Your task to perform on an android device: find photos in the google photos app Image 0: 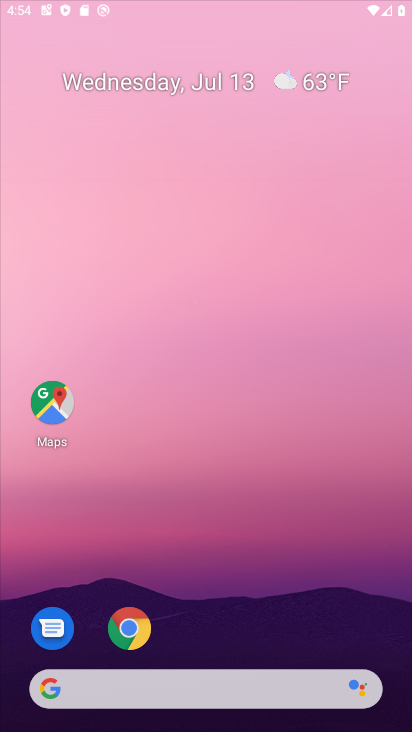
Step 0: press home button
Your task to perform on an android device: find photos in the google photos app Image 1: 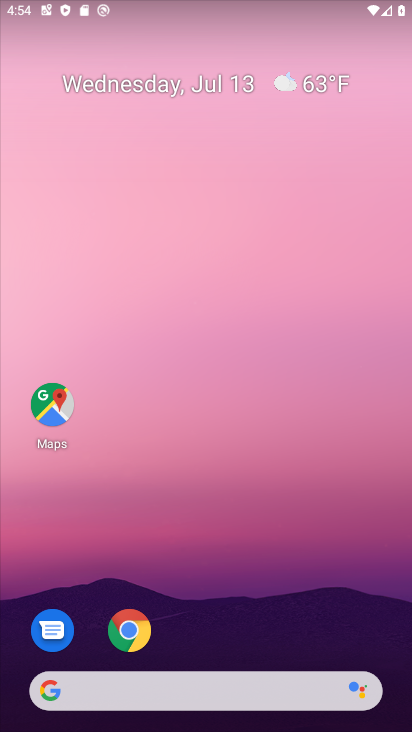
Step 1: drag from (239, 640) to (334, 128)
Your task to perform on an android device: find photos in the google photos app Image 2: 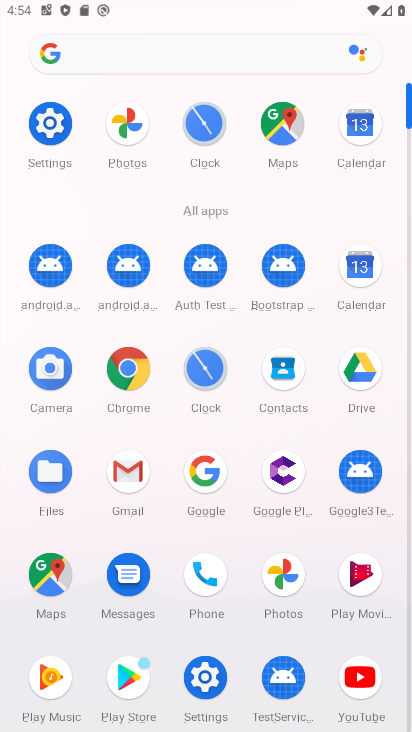
Step 2: click (292, 583)
Your task to perform on an android device: find photos in the google photos app Image 3: 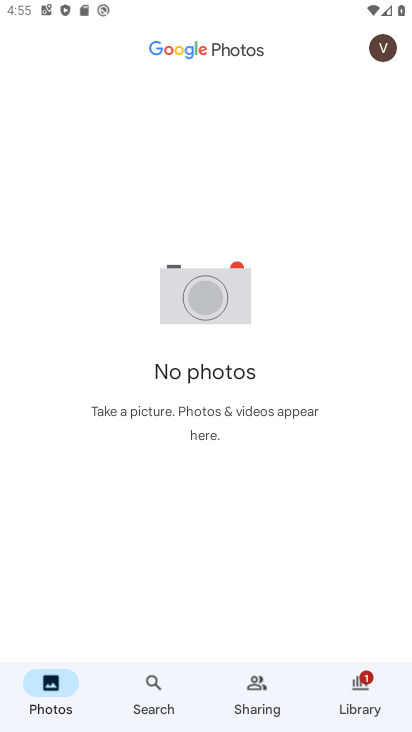
Step 3: click (50, 676)
Your task to perform on an android device: find photos in the google photos app Image 4: 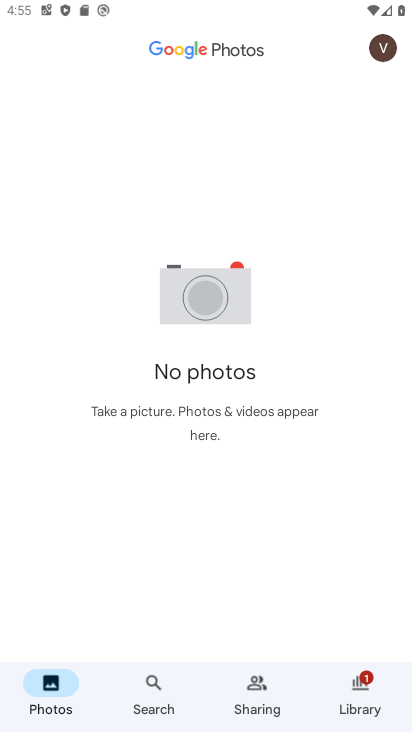
Step 4: task complete